Your task to perform on an android device: turn off notifications in google photos Image 0: 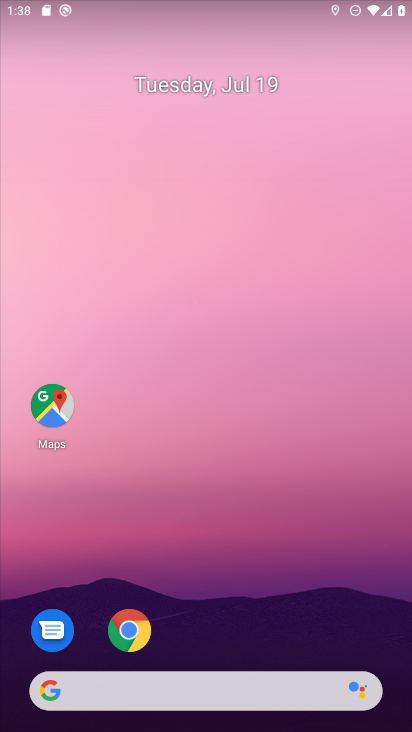
Step 0: press home button
Your task to perform on an android device: turn off notifications in google photos Image 1: 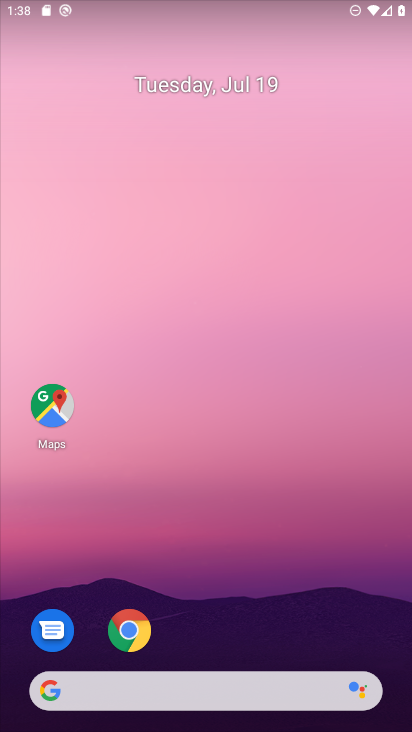
Step 1: drag from (191, 691) to (195, 112)
Your task to perform on an android device: turn off notifications in google photos Image 2: 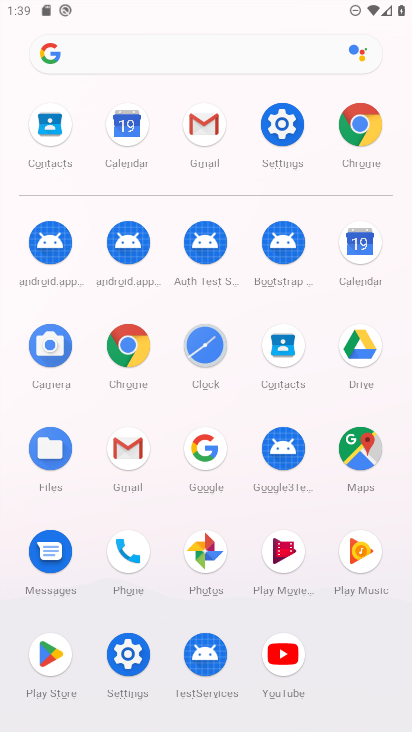
Step 2: click (209, 555)
Your task to perform on an android device: turn off notifications in google photos Image 3: 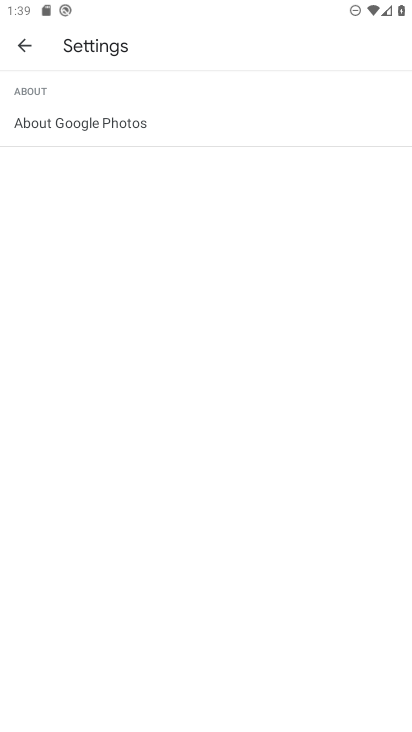
Step 3: click (29, 44)
Your task to perform on an android device: turn off notifications in google photos Image 4: 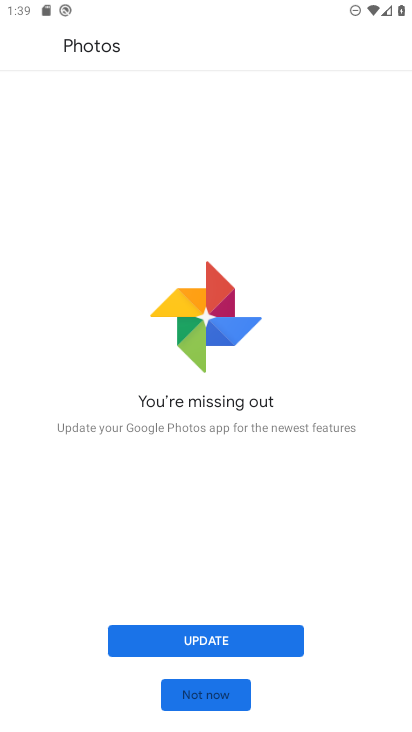
Step 4: click (223, 688)
Your task to perform on an android device: turn off notifications in google photos Image 5: 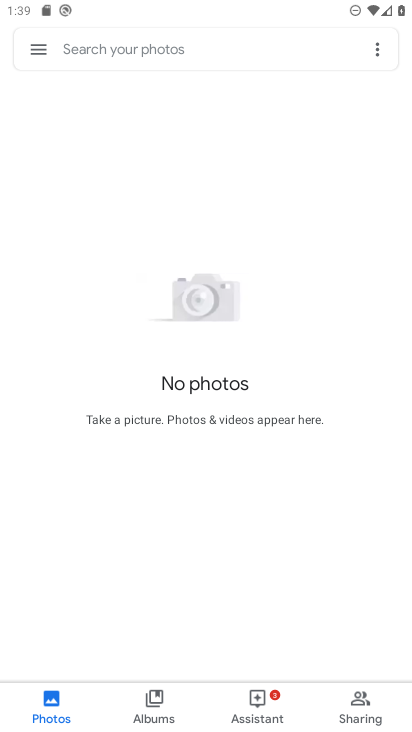
Step 5: click (33, 47)
Your task to perform on an android device: turn off notifications in google photos Image 6: 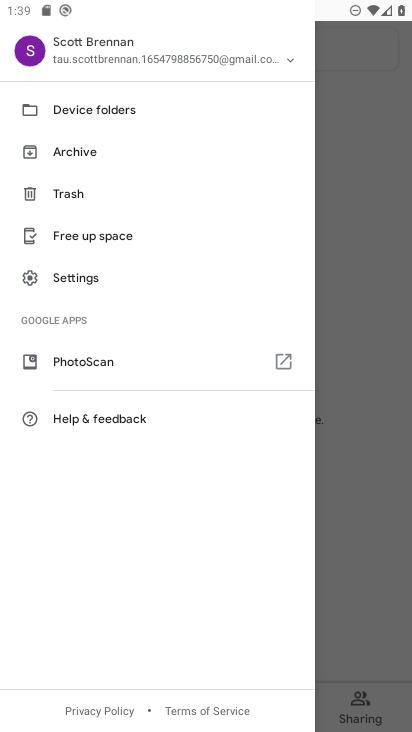
Step 6: click (77, 278)
Your task to perform on an android device: turn off notifications in google photos Image 7: 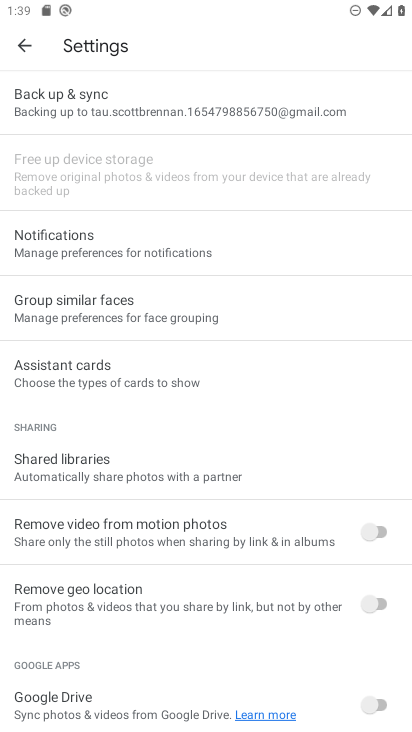
Step 7: click (124, 240)
Your task to perform on an android device: turn off notifications in google photos Image 8: 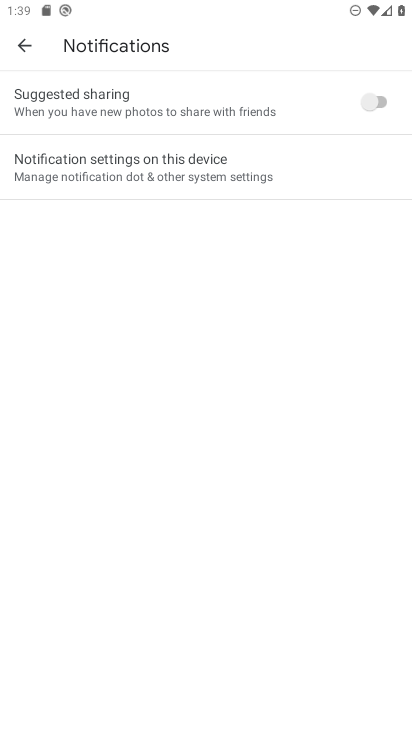
Step 8: click (176, 169)
Your task to perform on an android device: turn off notifications in google photos Image 9: 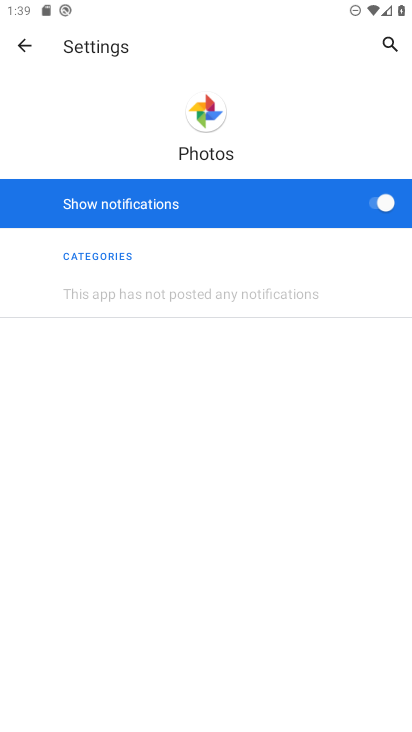
Step 9: click (376, 200)
Your task to perform on an android device: turn off notifications in google photos Image 10: 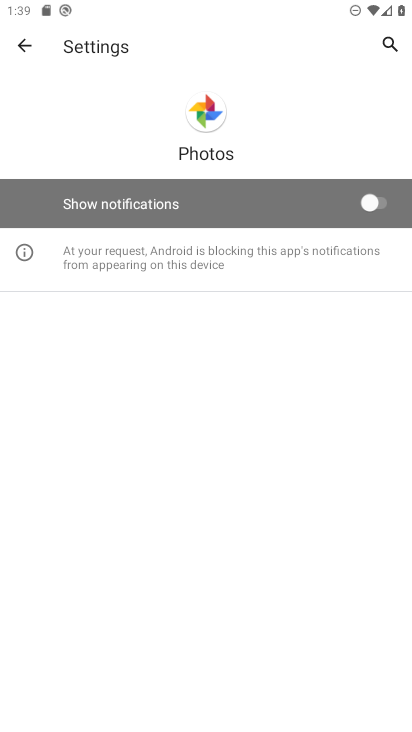
Step 10: task complete